Your task to perform on an android device: Open Google Chrome and open the bookmarks view Image 0: 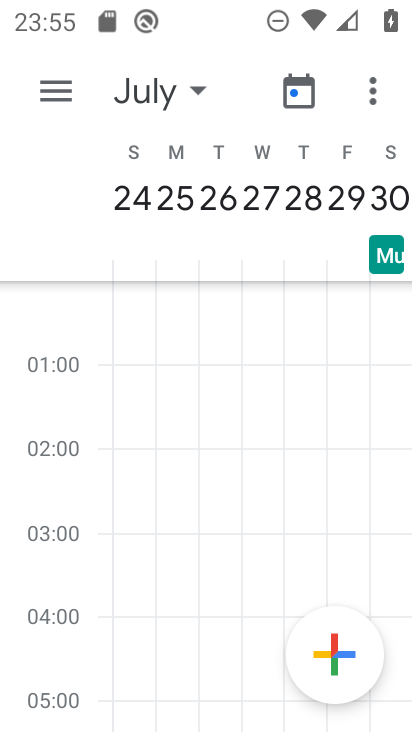
Step 0: press home button
Your task to perform on an android device: Open Google Chrome and open the bookmarks view Image 1: 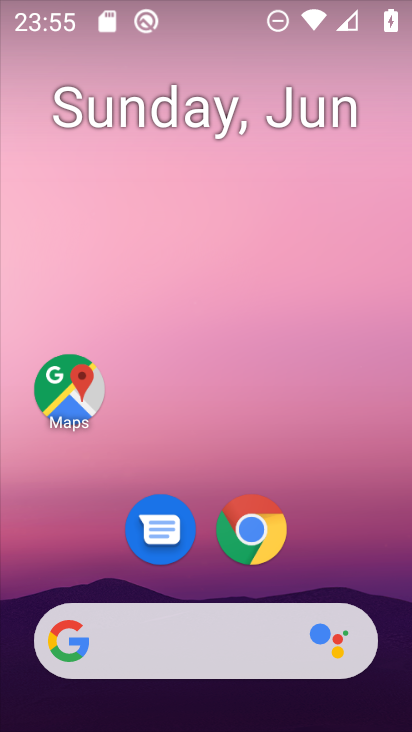
Step 1: click (255, 534)
Your task to perform on an android device: Open Google Chrome and open the bookmarks view Image 2: 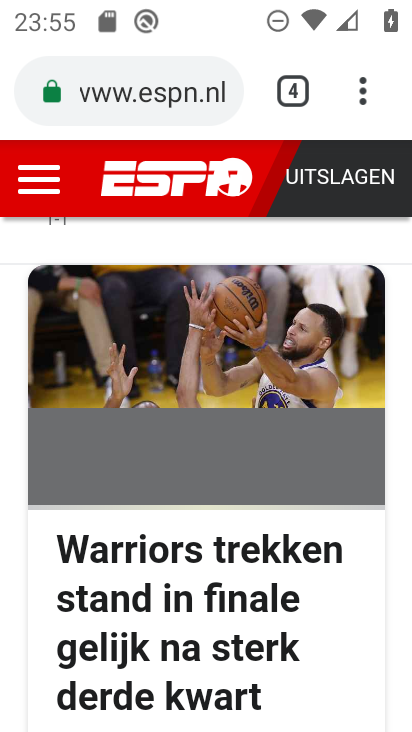
Step 2: click (360, 97)
Your task to perform on an android device: Open Google Chrome and open the bookmarks view Image 3: 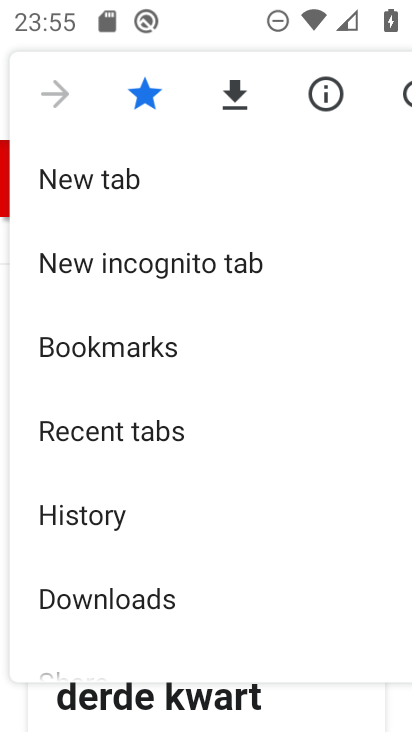
Step 3: click (127, 360)
Your task to perform on an android device: Open Google Chrome and open the bookmarks view Image 4: 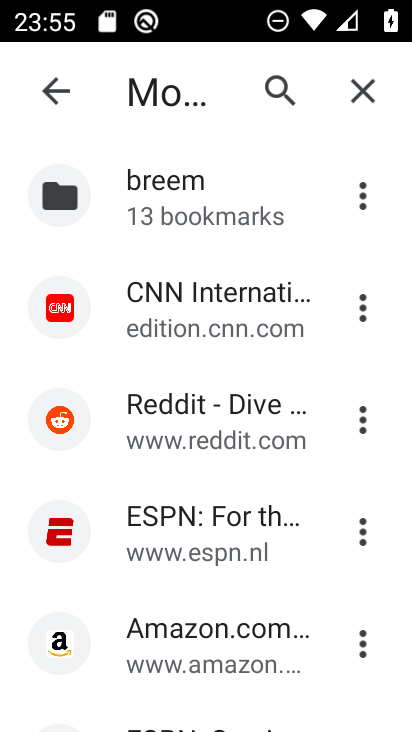
Step 4: task complete